Your task to perform on an android device: toggle location history Image 0: 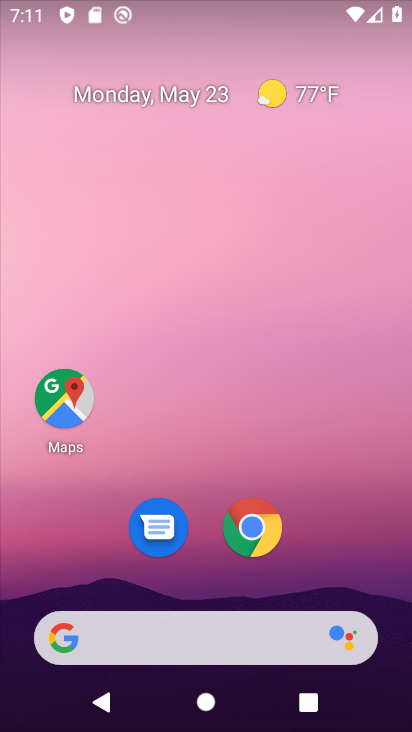
Step 0: press home button
Your task to perform on an android device: toggle location history Image 1: 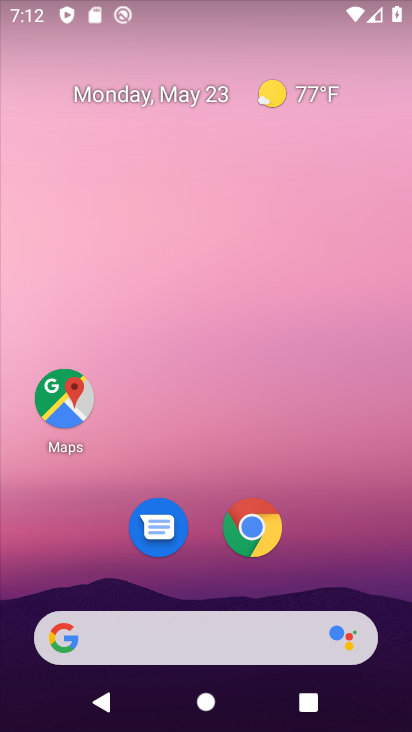
Step 1: drag from (285, 652) to (282, 132)
Your task to perform on an android device: toggle location history Image 2: 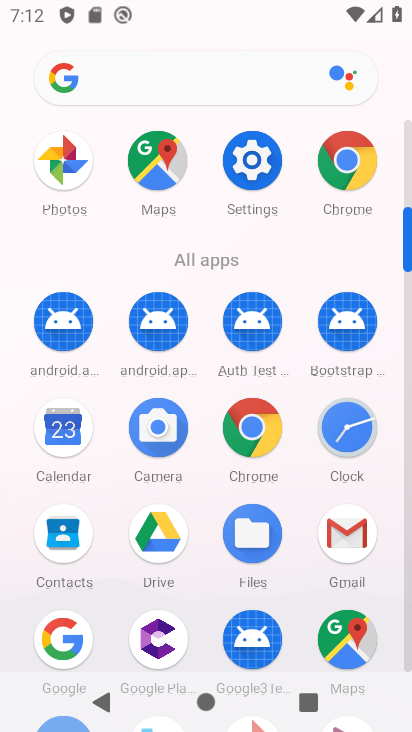
Step 2: click (261, 171)
Your task to perform on an android device: toggle location history Image 3: 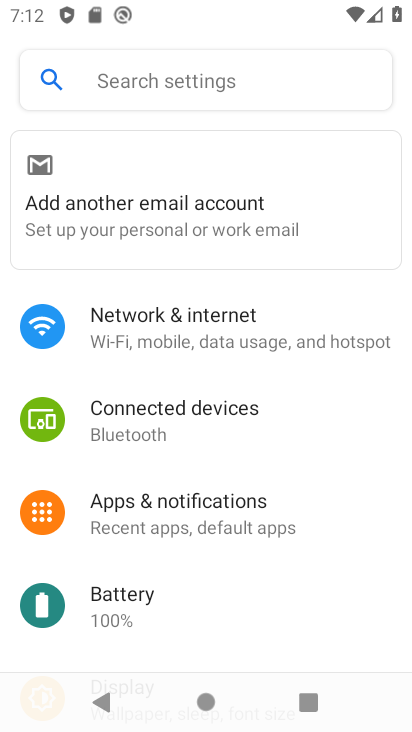
Step 3: click (167, 102)
Your task to perform on an android device: toggle location history Image 4: 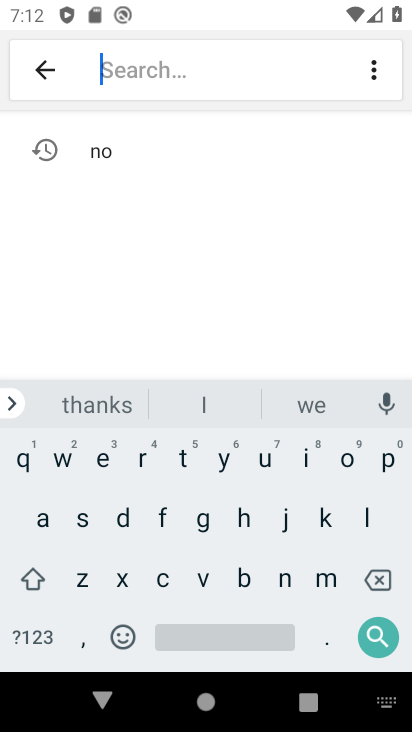
Step 4: click (363, 514)
Your task to perform on an android device: toggle location history Image 5: 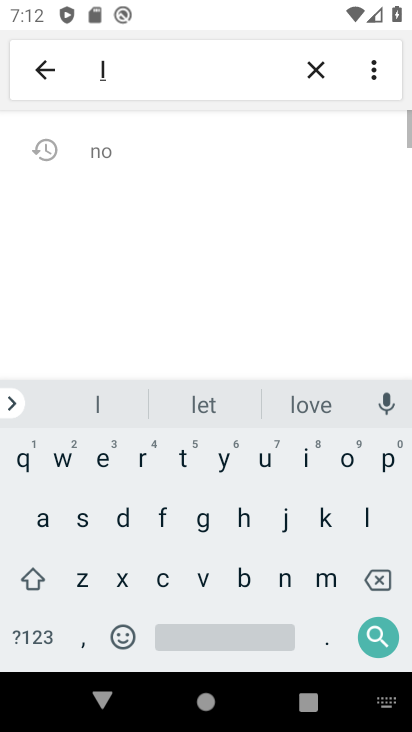
Step 5: click (347, 465)
Your task to perform on an android device: toggle location history Image 6: 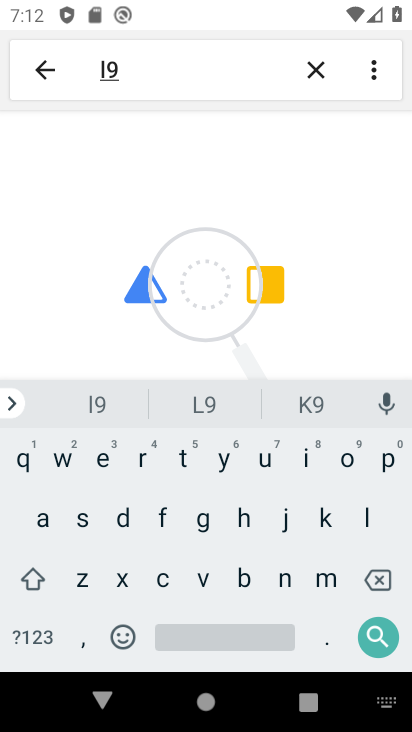
Step 6: click (369, 592)
Your task to perform on an android device: toggle location history Image 7: 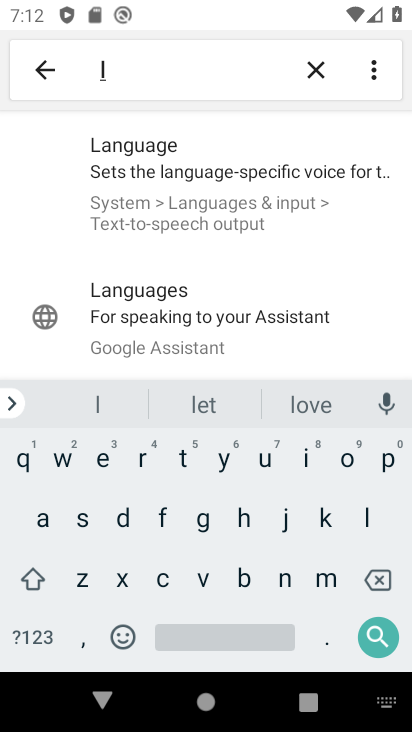
Step 7: click (344, 463)
Your task to perform on an android device: toggle location history Image 8: 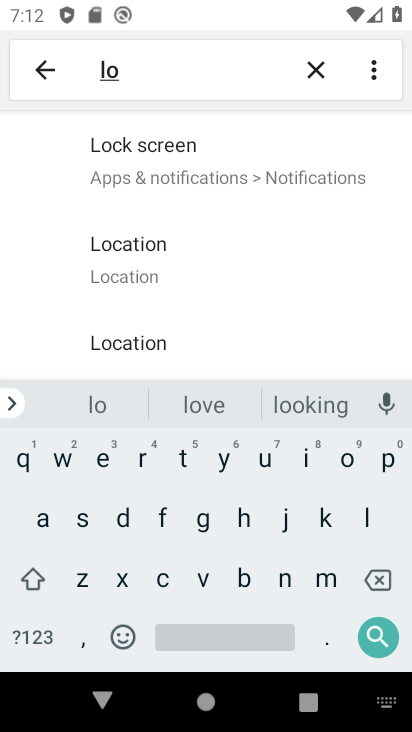
Step 8: click (151, 262)
Your task to perform on an android device: toggle location history Image 9: 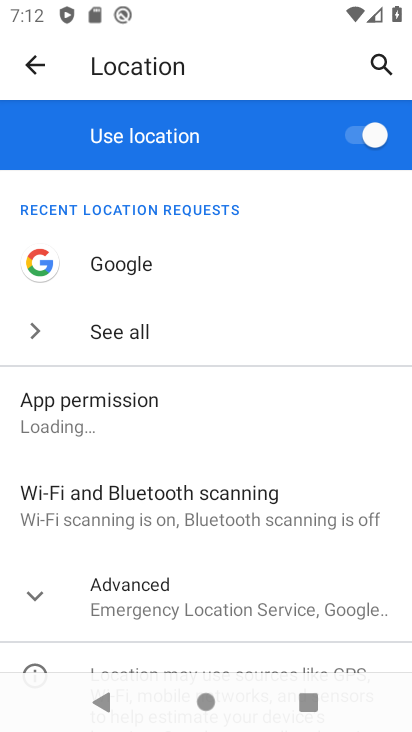
Step 9: click (31, 594)
Your task to perform on an android device: toggle location history Image 10: 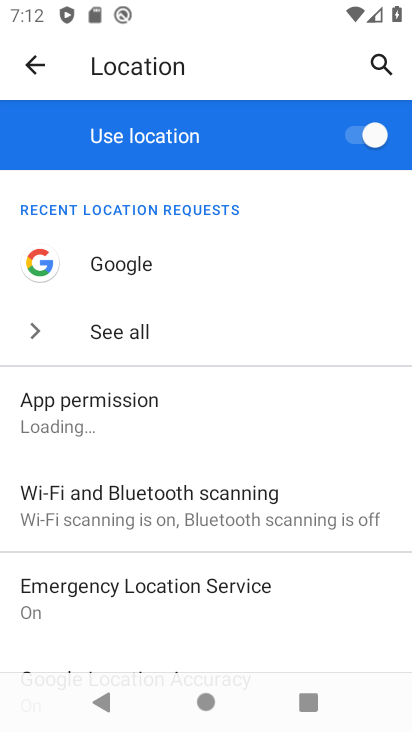
Step 10: drag from (194, 553) to (206, 298)
Your task to perform on an android device: toggle location history Image 11: 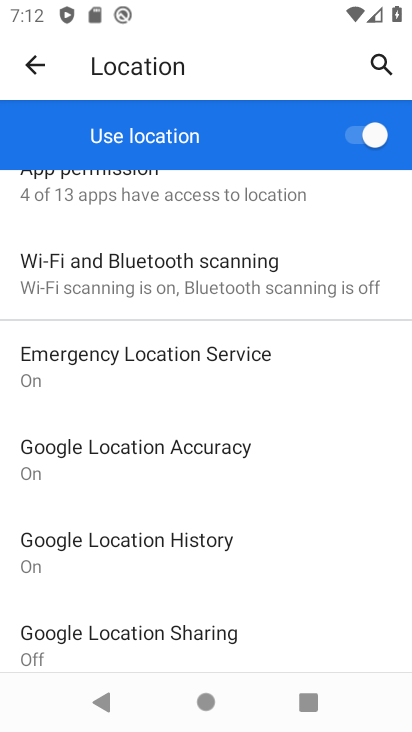
Step 11: click (136, 559)
Your task to perform on an android device: toggle location history Image 12: 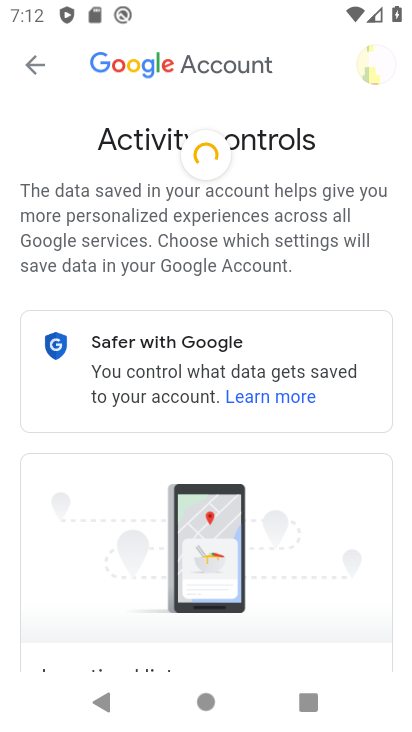
Step 12: task complete